Your task to perform on an android device: toggle improve location accuracy Image 0: 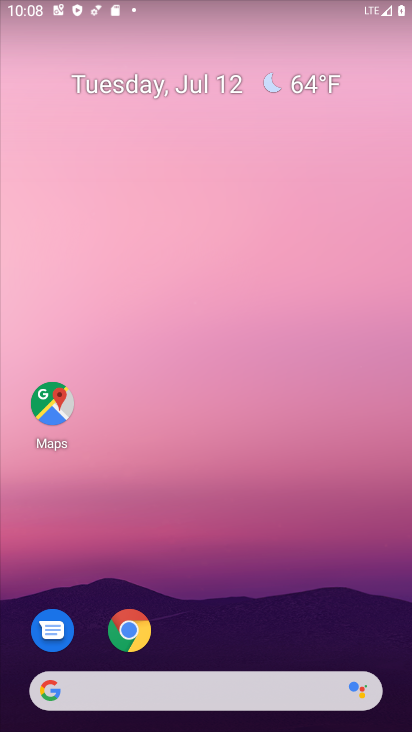
Step 0: drag from (327, 497) to (330, 0)
Your task to perform on an android device: toggle improve location accuracy Image 1: 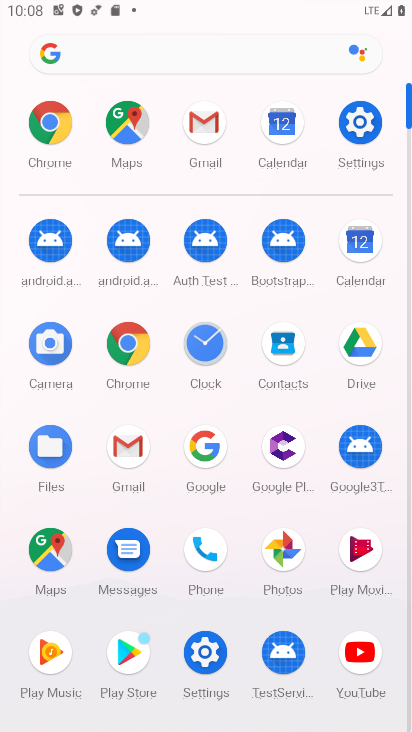
Step 1: click (356, 133)
Your task to perform on an android device: toggle improve location accuracy Image 2: 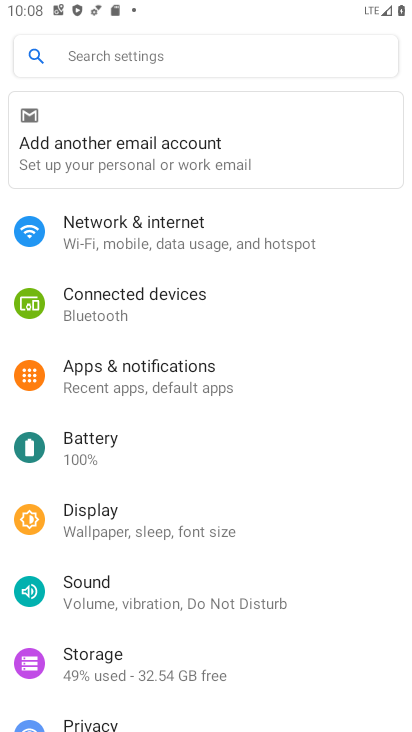
Step 2: drag from (186, 641) to (284, 177)
Your task to perform on an android device: toggle improve location accuracy Image 3: 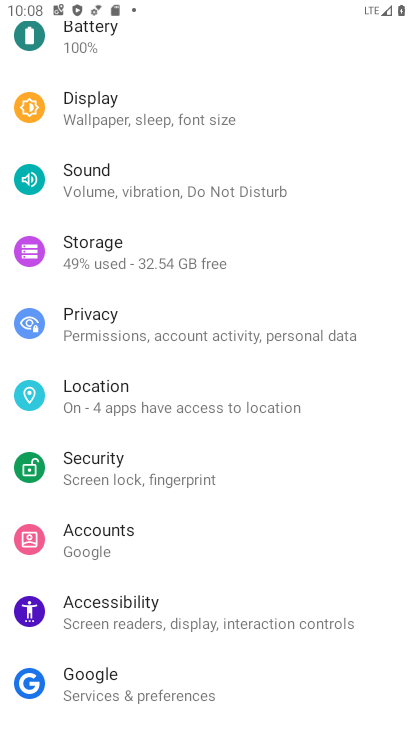
Step 3: drag from (231, 172) to (234, 630)
Your task to perform on an android device: toggle improve location accuracy Image 4: 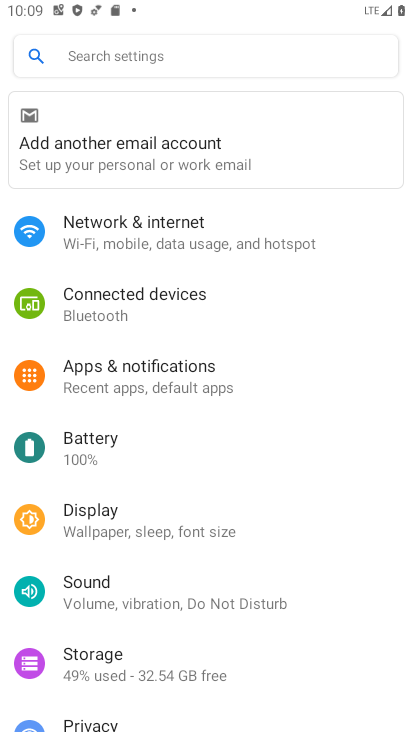
Step 4: drag from (196, 660) to (217, 158)
Your task to perform on an android device: toggle improve location accuracy Image 5: 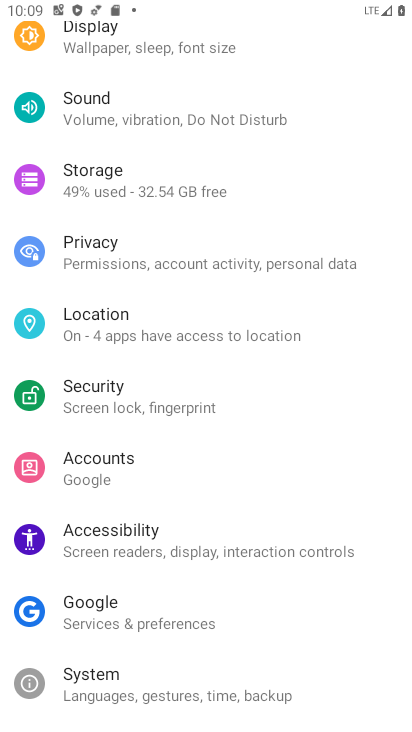
Step 5: click (115, 333)
Your task to perform on an android device: toggle improve location accuracy Image 6: 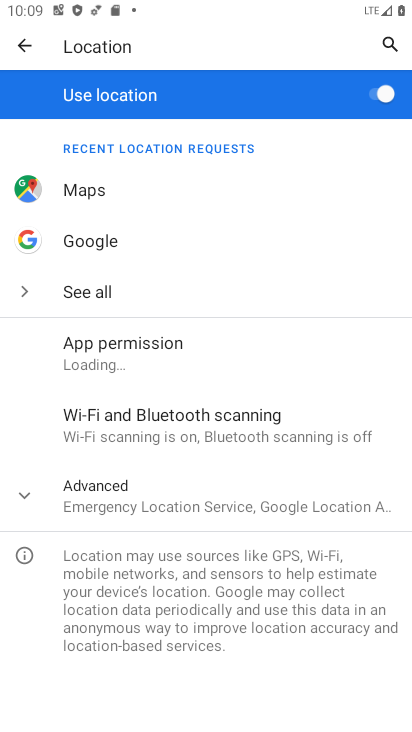
Step 6: drag from (112, 468) to (114, 306)
Your task to perform on an android device: toggle improve location accuracy Image 7: 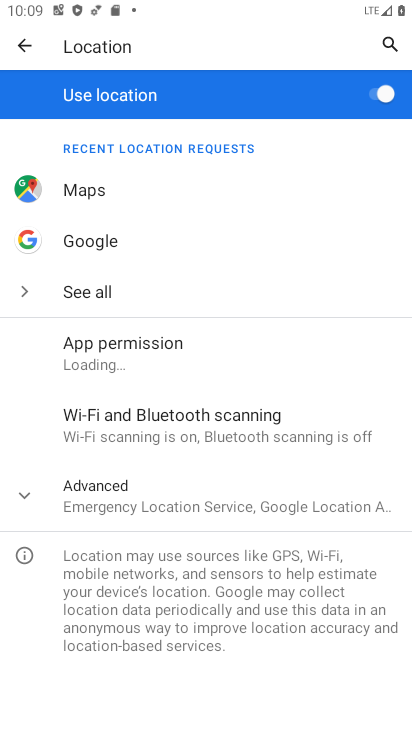
Step 7: click (125, 503)
Your task to perform on an android device: toggle improve location accuracy Image 8: 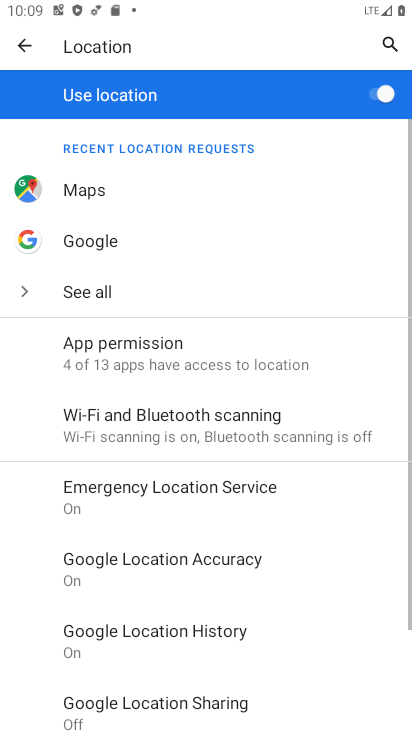
Step 8: drag from (176, 613) to (260, 213)
Your task to perform on an android device: toggle improve location accuracy Image 9: 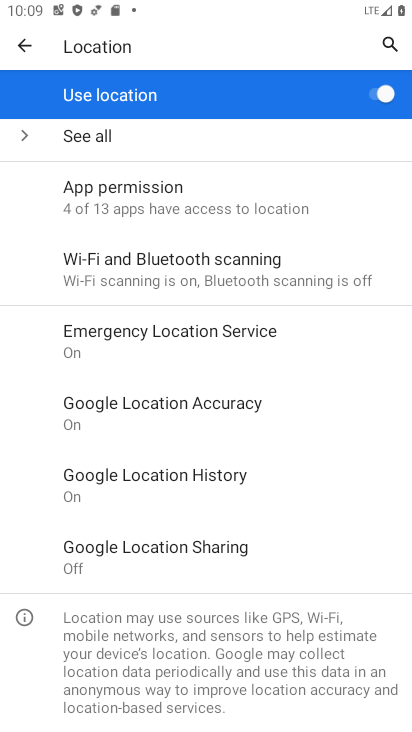
Step 9: click (176, 417)
Your task to perform on an android device: toggle improve location accuracy Image 10: 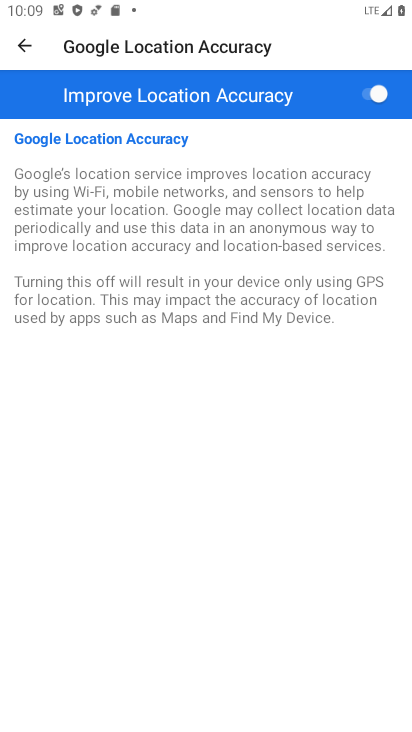
Step 10: click (369, 80)
Your task to perform on an android device: toggle improve location accuracy Image 11: 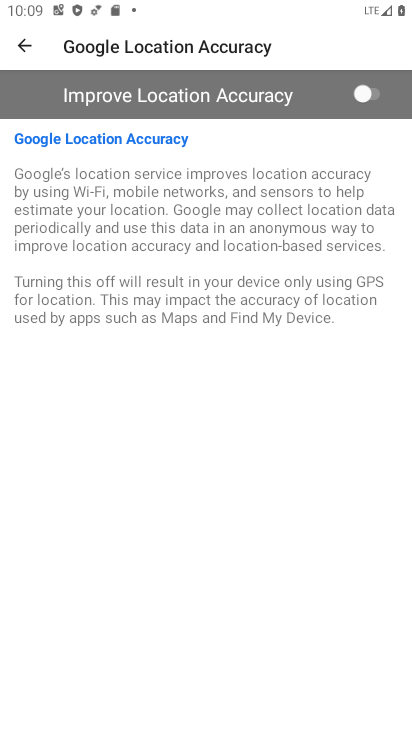
Step 11: task complete